Your task to perform on an android device: empty trash in google photos Image 0: 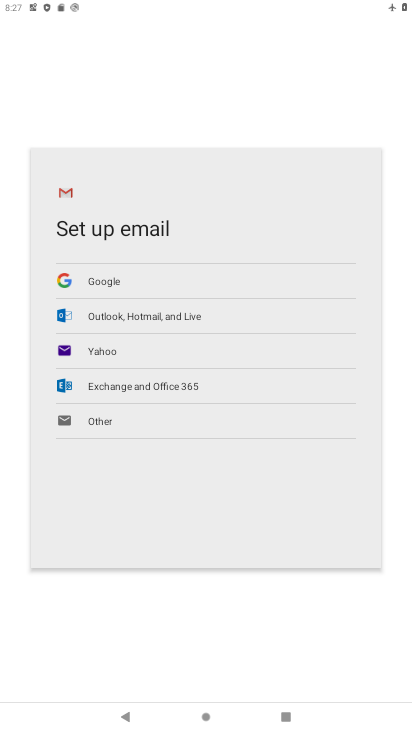
Step 0: press home button
Your task to perform on an android device: empty trash in google photos Image 1: 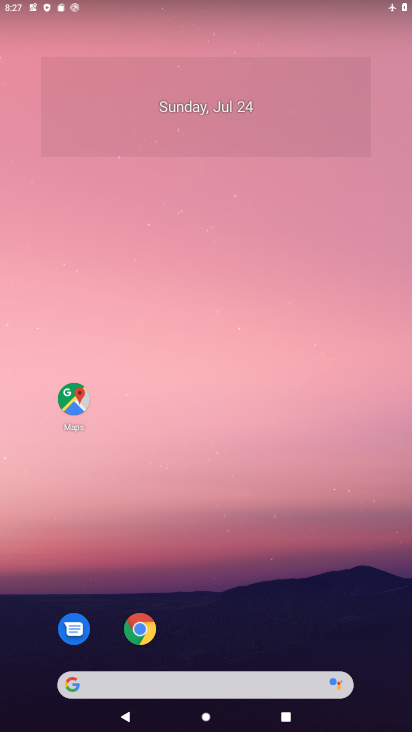
Step 1: drag from (193, 636) to (200, 67)
Your task to perform on an android device: empty trash in google photos Image 2: 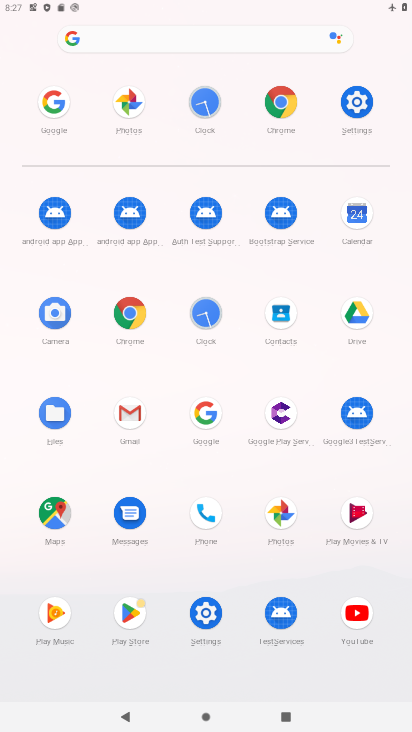
Step 2: click (277, 514)
Your task to perform on an android device: empty trash in google photos Image 3: 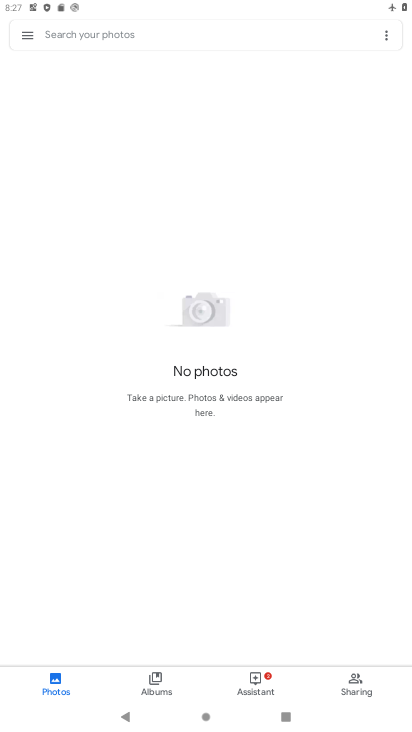
Step 3: click (26, 45)
Your task to perform on an android device: empty trash in google photos Image 4: 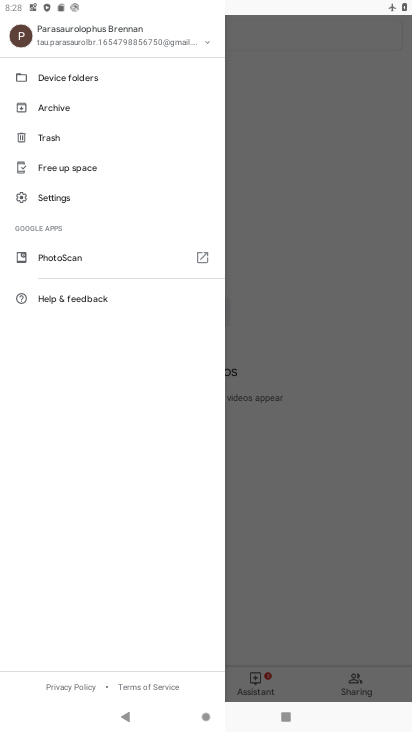
Step 4: click (45, 136)
Your task to perform on an android device: empty trash in google photos Image 5: 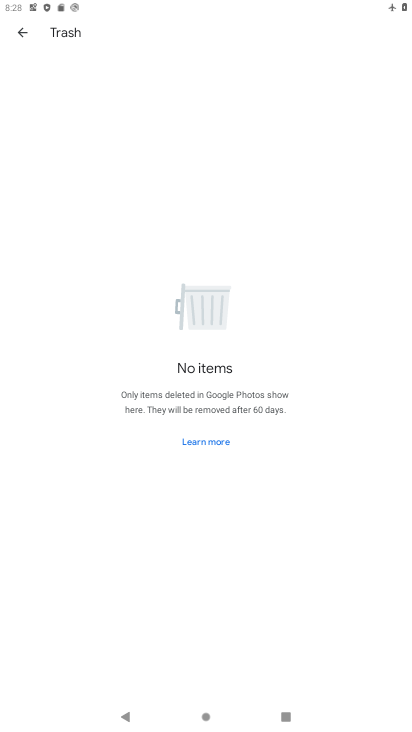
Step 5: task complete